Your task to perform on an android device: Go to internet settings Image 0: 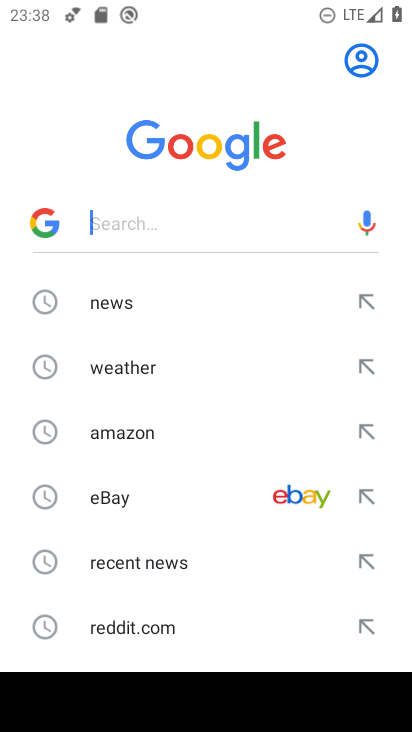
Step 0: press home button
Your task to perform on an android device: Go to internet settings Image 1: 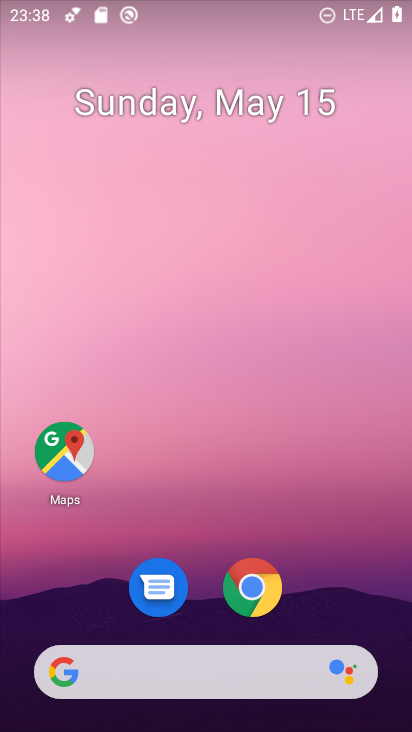
Step 1: drag from (206, 631) to (237, 142)
Your task to perform on an android device: Go to internet settings Image 2: 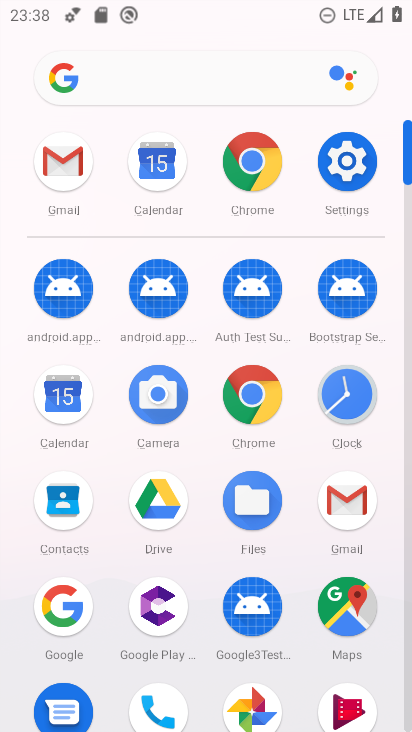
Step 2: click (364, 178)
Your task to perform on an android device: Go to internet settings Image 3: 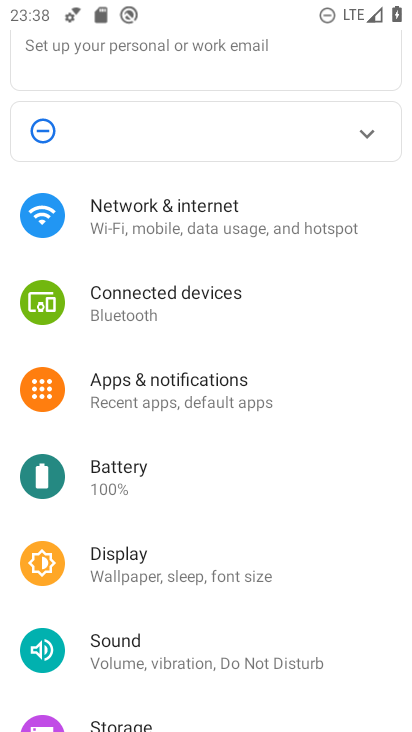
Step 3: click (165, 238)
Your task to perform on an android device: Go to internet settings Image 4: 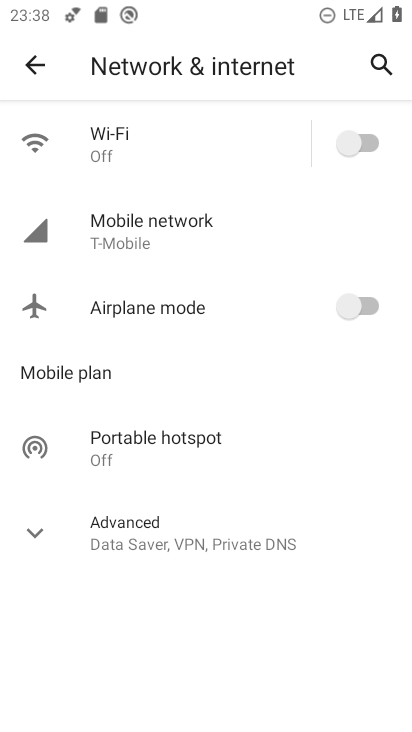
Step 4: click (184, 234)
Your task to perform on an android device: Go to internet settings Image 5: 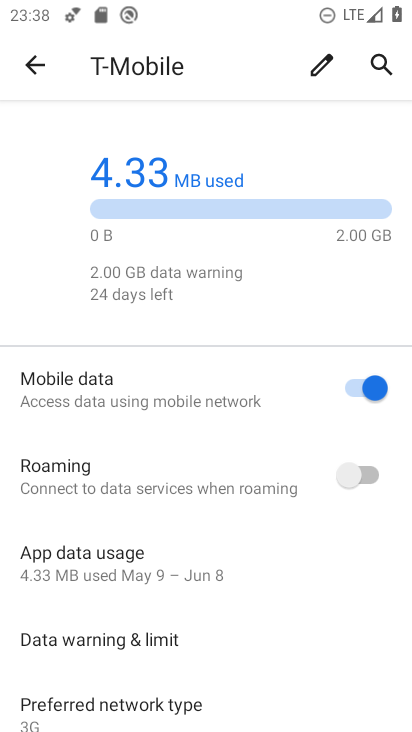
Step 5: task complete